Your task to perform on an android device: remove spam from my inbox in the gmail app Image 0: 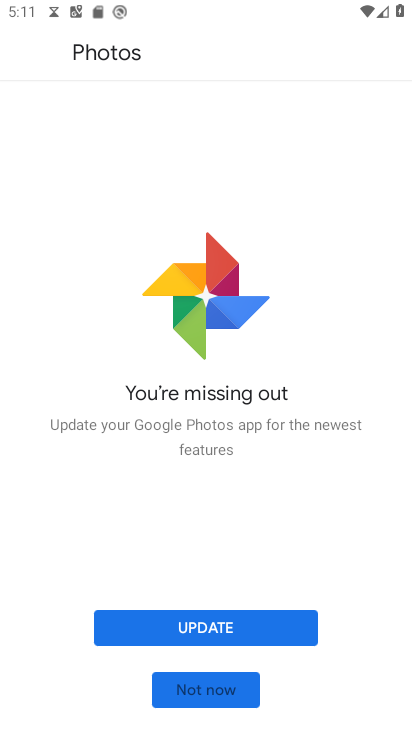
Step 0: press home button
Your task to perform on an android device: remove spam from my inbox in the gmail app Image 1: 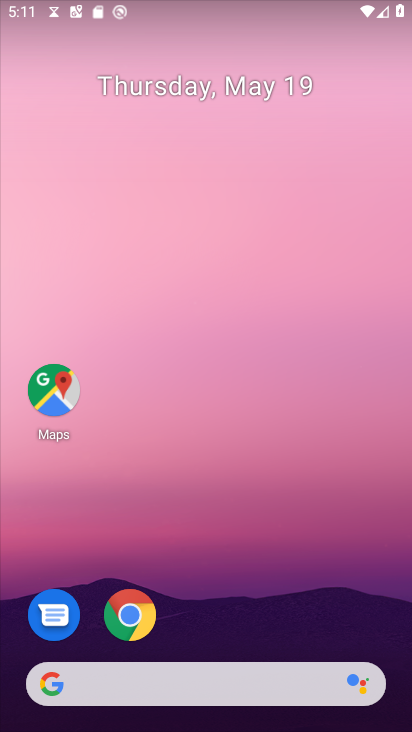
Step 1: drag from (315, 629) to (294, 97)
Your task to perform on an android device: remove spam from my inbox in the gmail app Image 2: 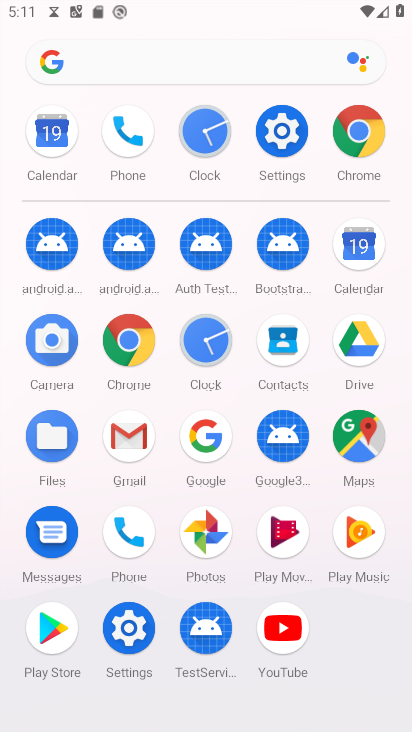
Step 2: click (133, 425)
Your task to perform on an android device: remove spam from my inbox in the gmail app Image 3: 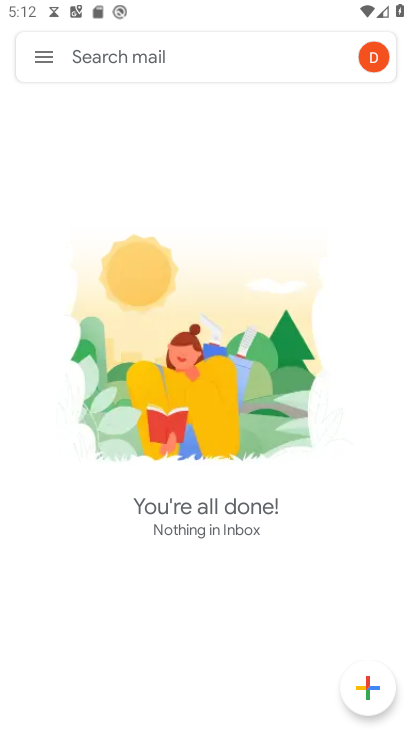
Step 3: click (56, 50)
Your task to perform on an android device: remove spam from my inbox in the gmail app Image 4: 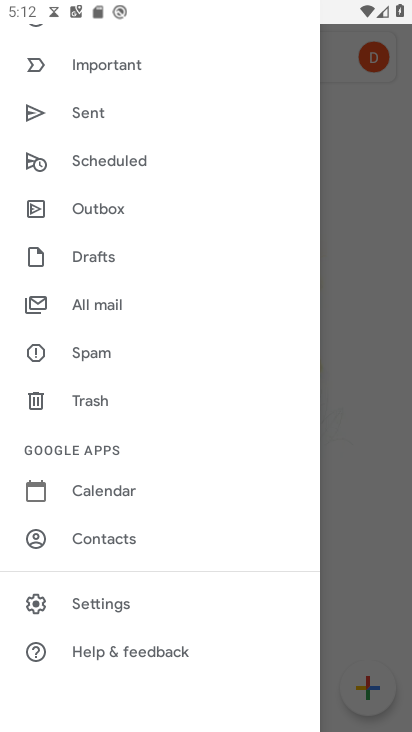
Step 4: click (128, 608)
Your task to perform on an android device: remove spam from my inbox in the gmail app Image 5: 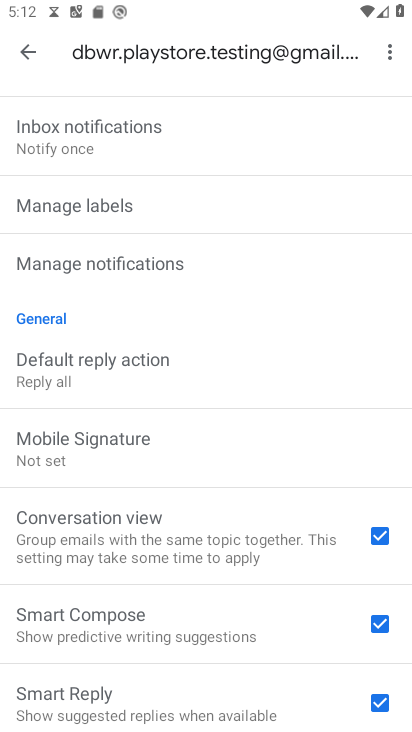
Step 5: drag from (224, 220) to (221, 694)
Your task to perform on an android device: remove spam from my inbox in the gmail app Image 6: 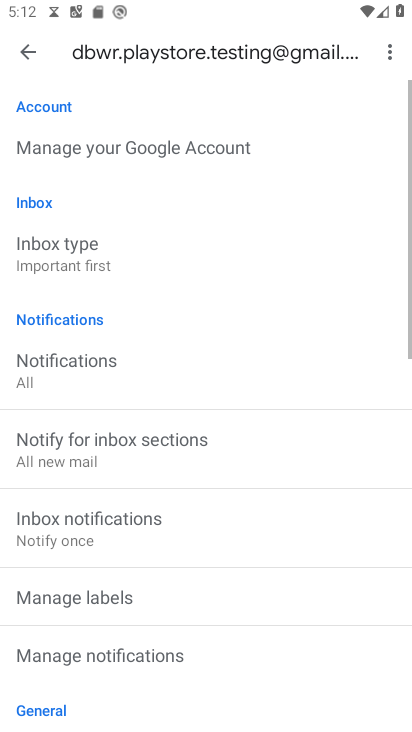
Step 6: click (220, 703)
Your task to perform on an android device: remove spam from my inbox in the gmail app Image 7: 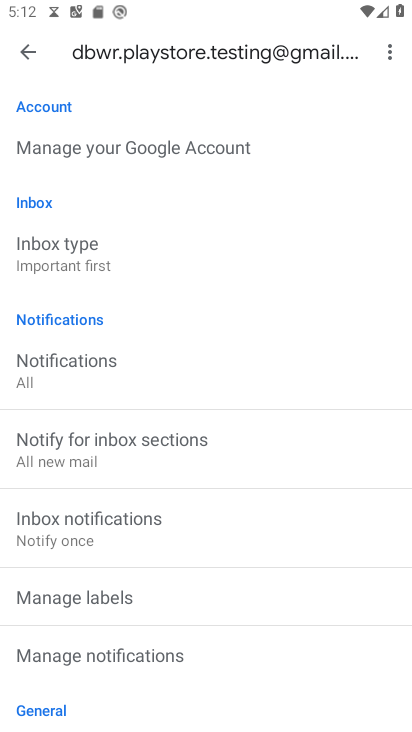
Step 7: press back button
Your task to perform on an android device: remove spam from my inbox in the gmail app Image 8: 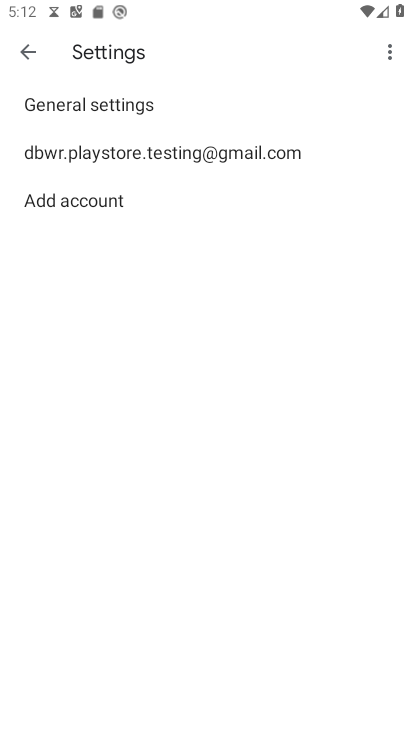
Step 8: press back button
Your task to perform on an android device: remove spam from my inbox in the gmail app Image 9: 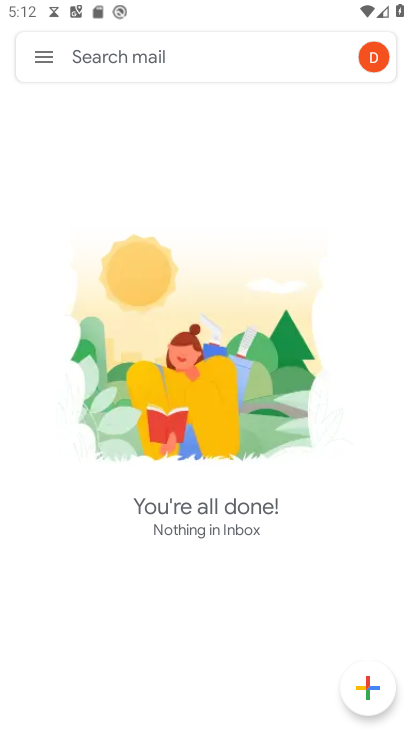
Step 9: click (49, 54)
Your task to perform on an android device: remove spam from my inbox in the gmail app Image 10: 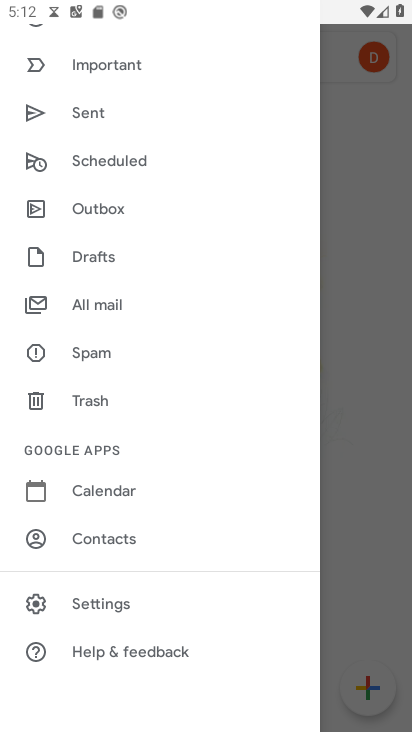
Step 10: click (116, 346)
Your task to perform on an android device: remove spam from my inbox in the gmail app Image 11: 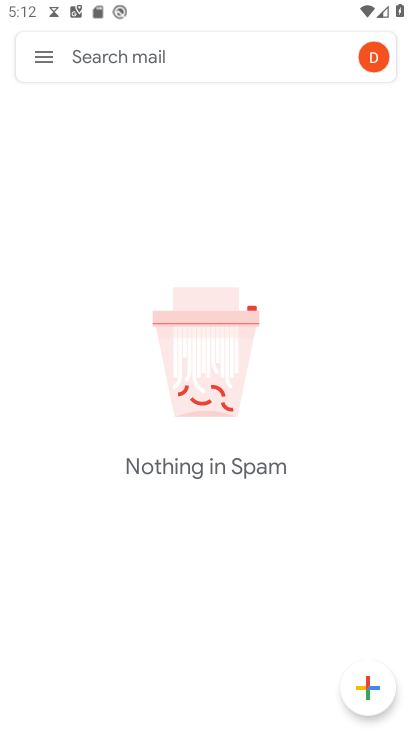
Step 11: task complete